Your task to perform on an android device: turn notification dots off Image 0: 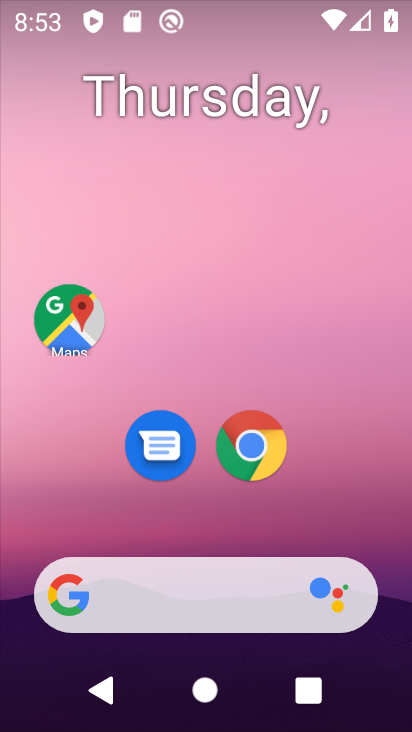
Step 0: drag from (375, 550) to (386, 10)
Your task to perform on an android device: turn notification dots off Image 1: 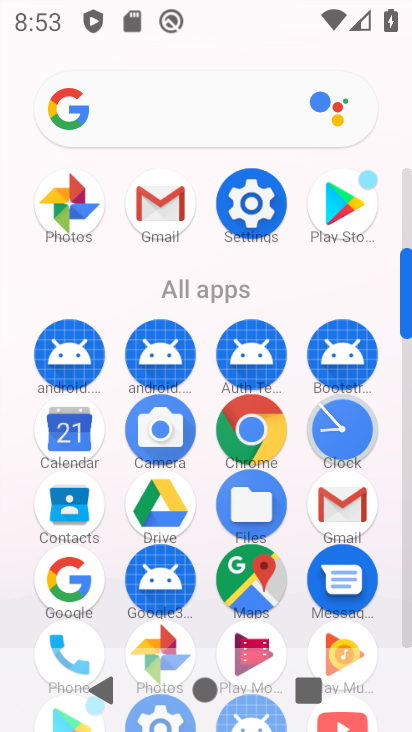
Step 1: click (247, 211)
Your task to perform on an android device: turn notification dots off Image 2: 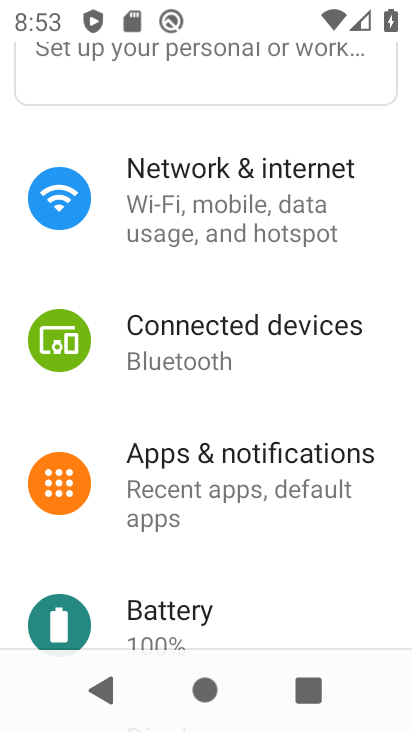
Step 2: click (255, 448)
Your task to perform on an android device: turn notification dots off Image 3: 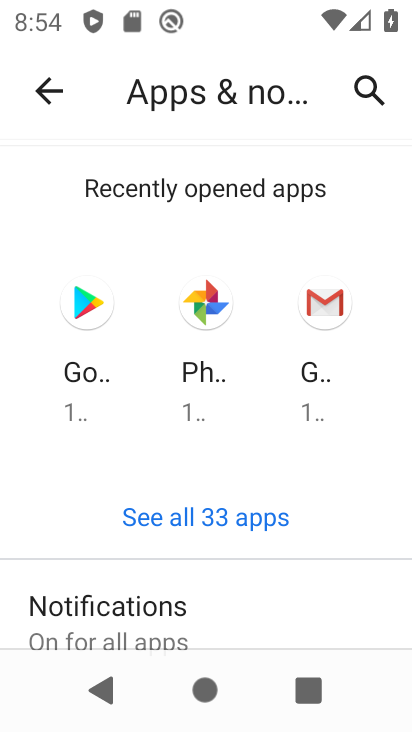
Step 3: drag from (306, 592) to (320, 242)
Your task to perform on an android device: turn notification dots off Image 4: 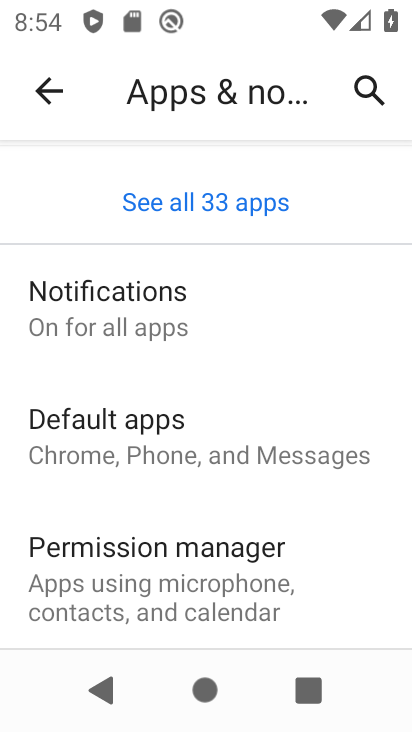
Step 4: click (160, 333)
Your task to perform on an android device: turn notification dots off Image 5: 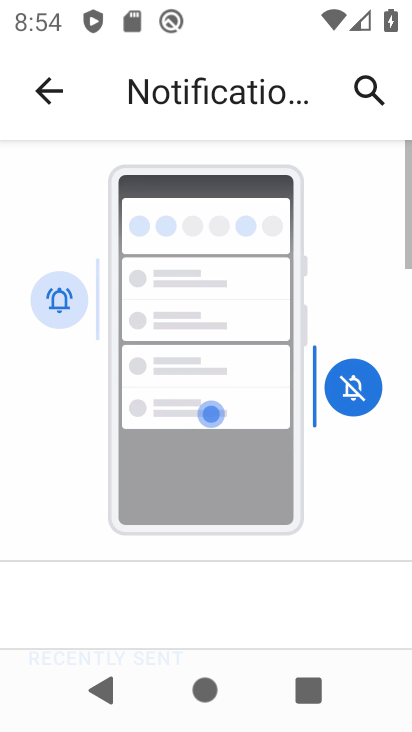
Step 5: drag from (279, 542) to (257, 106)
Your task to perform on an android device: turn notification dots off Image 6: 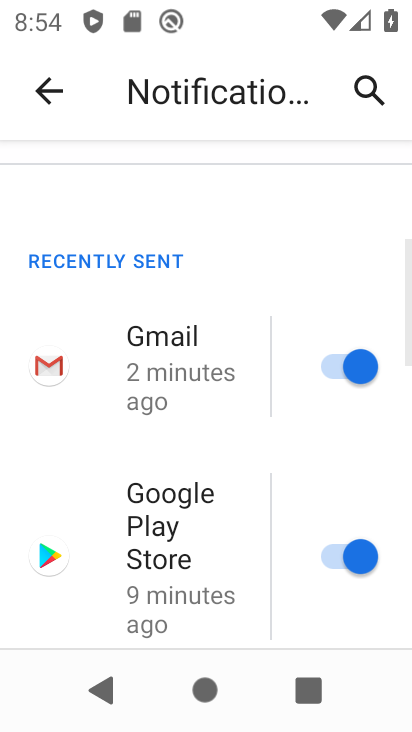
Step 6: drag from (223, 399) to (223, 77)
Your task to perform on an android device: turn notification dots off Image 7: 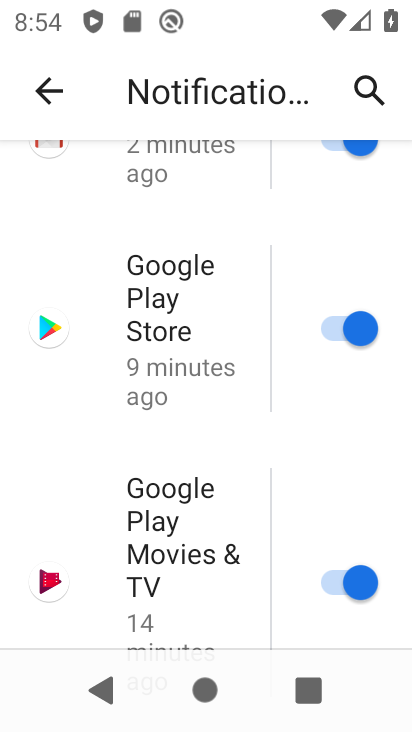
Step 7: drag from (202, 448) to (196, 98)
Your task to perform on an android device: turn notification dots off Image 8: 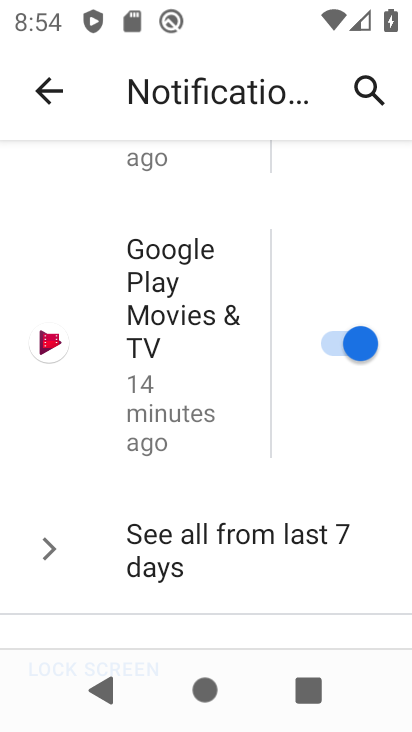
Step 8: drag from (211, 457) to (200, 181)
Your task to perform on an android device: turn notification dots off Image 9: 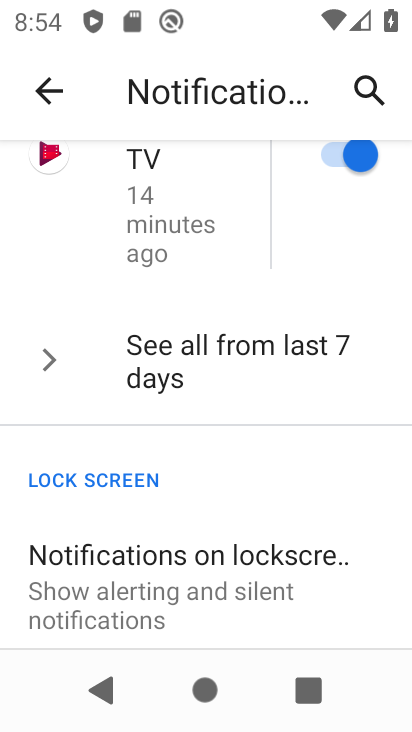
Step 9: drag from (230, 513) to (213, 247)
Your task to perform on an android device: turn notification dots off Image 10: 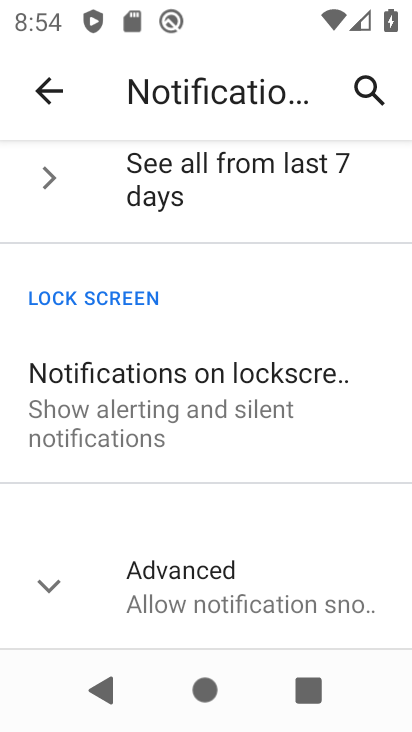
Step 10: click (51, 597)
Your task to perform on an android device: turn notification dots off Image 11: 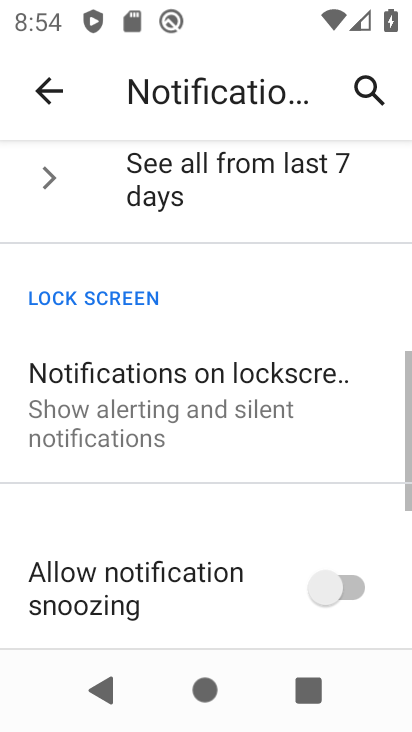
Step 11: drag from (205, 595) to (195, 244)
Your task to perform on an android device: turn notification dots off Image 12: 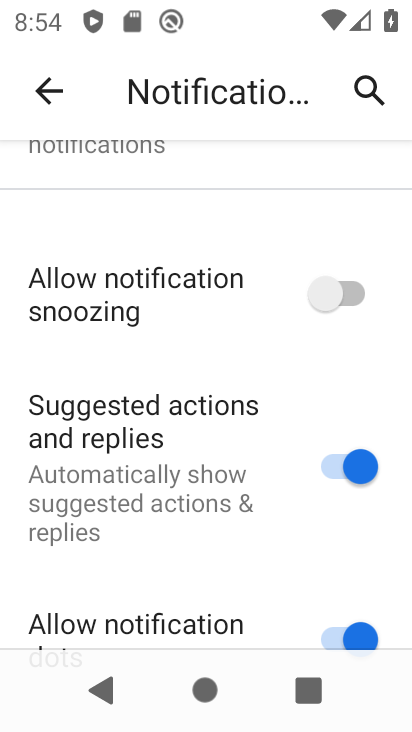
Step 12: drag from (170, 513) to (169, 201)
Your task to perform on an android device: turn notification dots off Image 13: 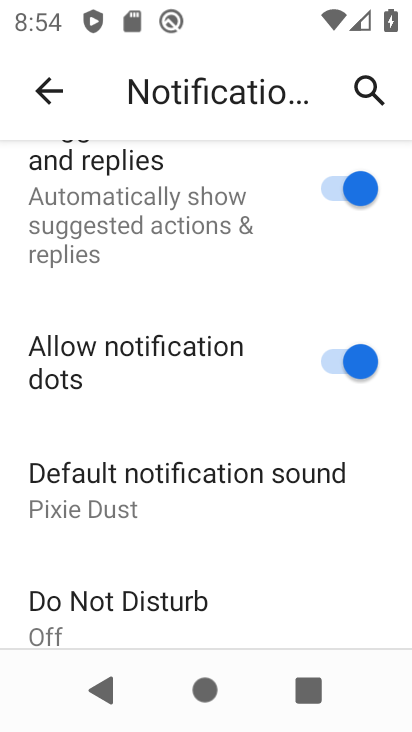
Step 13: click (375, 379)
Your task to perform on an android device: turn notification dots off Image 14: 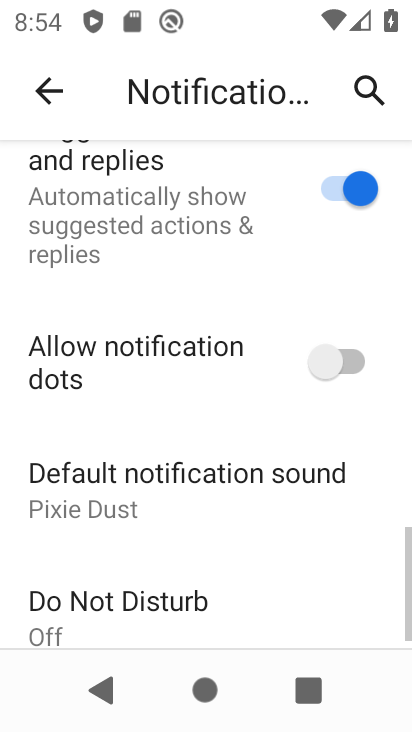
Step 14: task complete